Your task to perform on an android device: open app "PlayWell" (install if not already installed) Image 0: 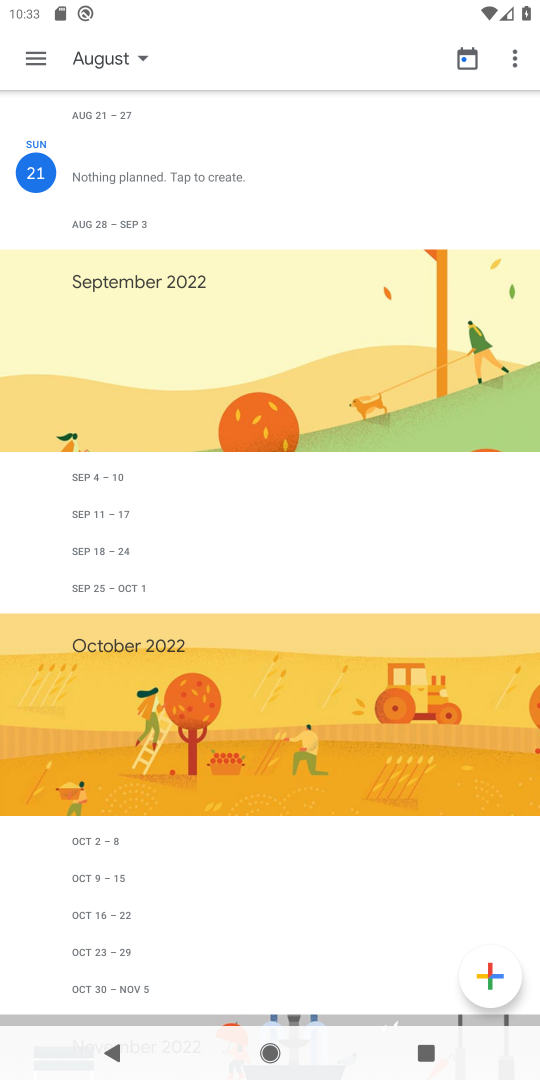
Step 0: press home button
Your task to perform on an android device: open app "PlayWell" (install if not already installed) Image 1: 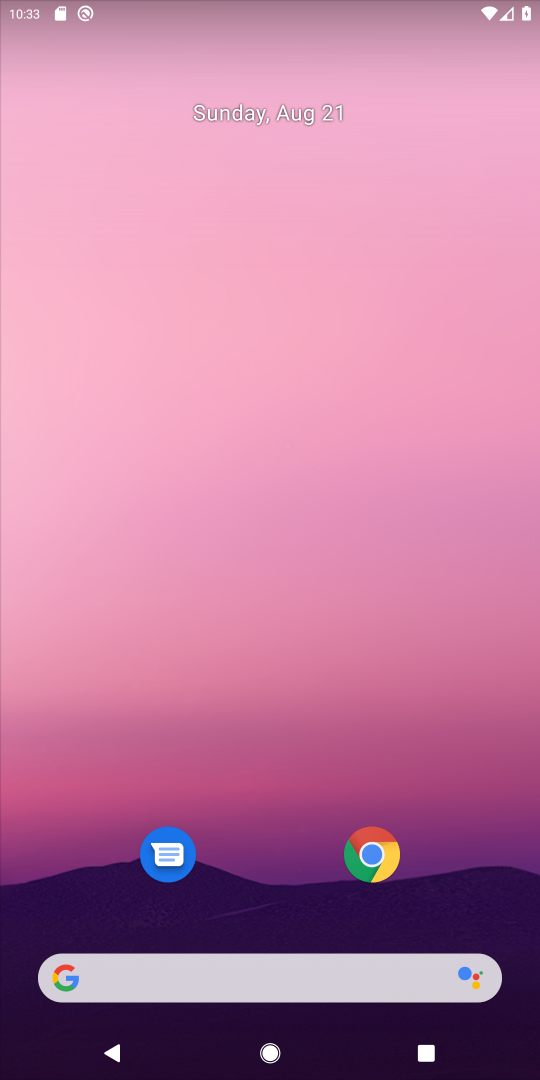
Step 1: drag from (305, 897) to (265, 29)
Your task to perform on an android device: open app "PlayWell" (install if not already installed) Image 2: 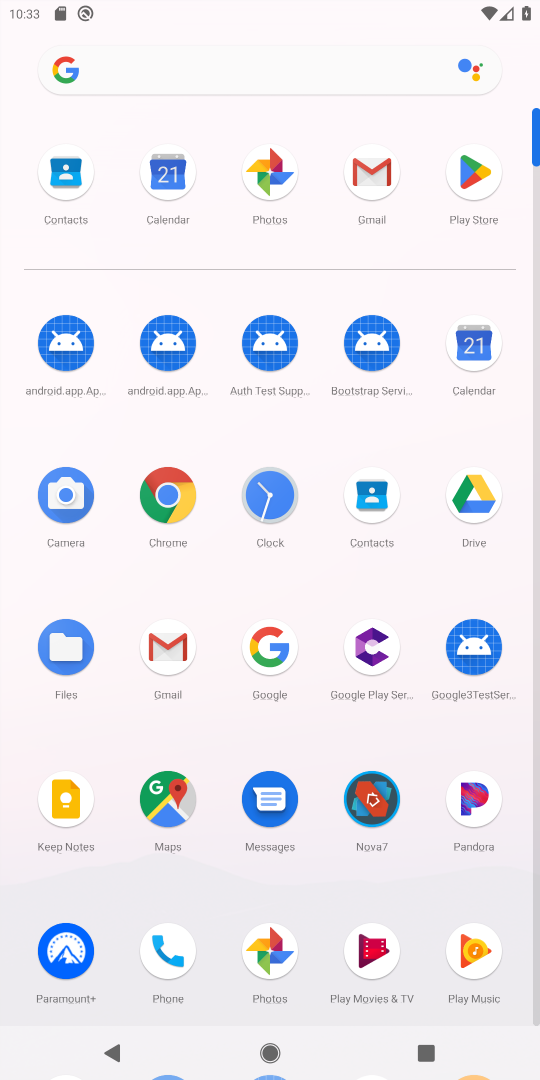
Step 2: click (448, 206)
Your task to perform on an android device: open app "PlayWell" (install if not already installed) Image 3: 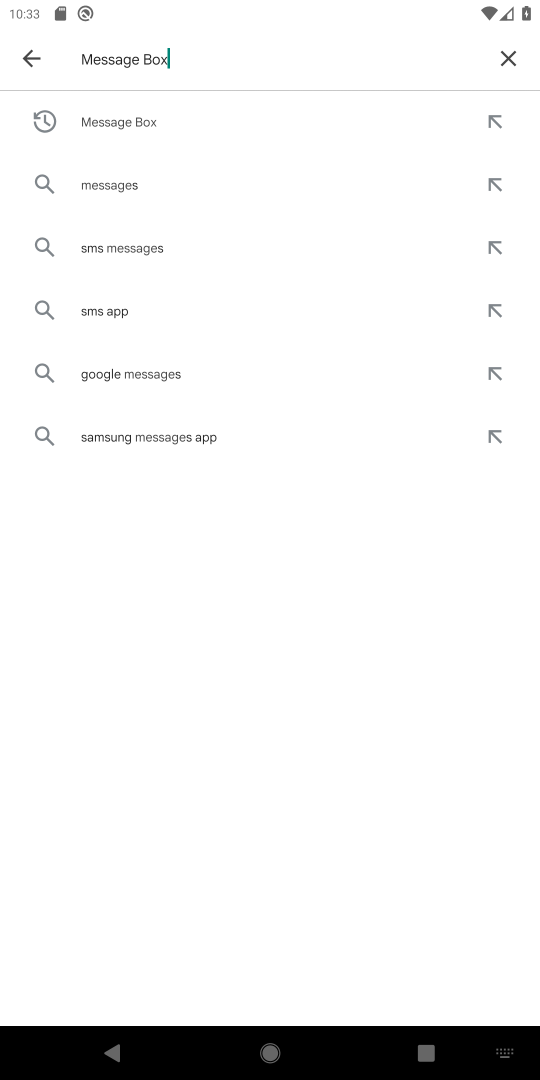
Step 3: click (498, 75)
Your task to perform on an android device: open app "PlayWell" (install if not already installed) Image 4: 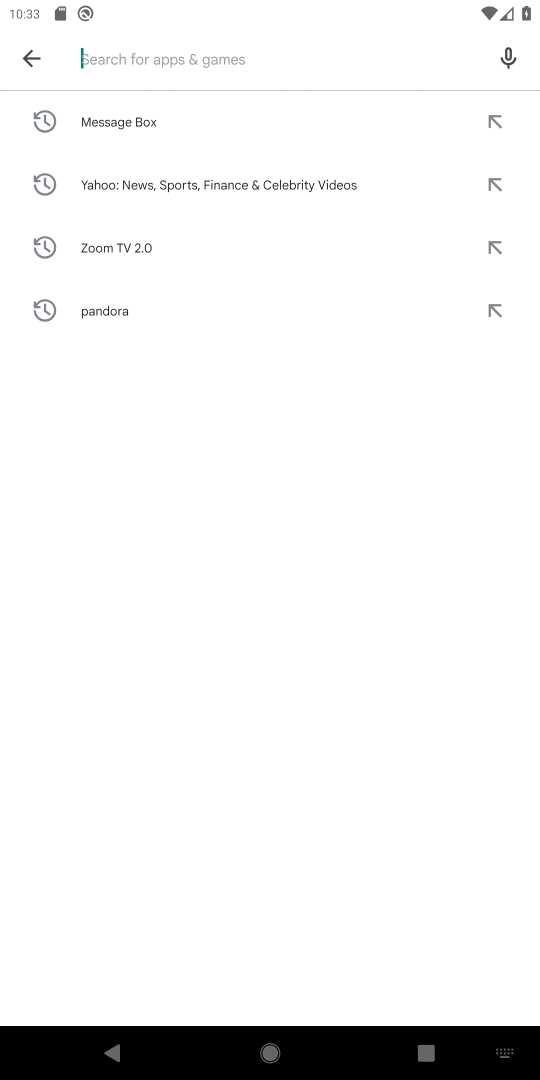
Step 4: type "playwell"
Your task to perform on an android device: open app "PlayWell" (install if not already installed) Image 5: 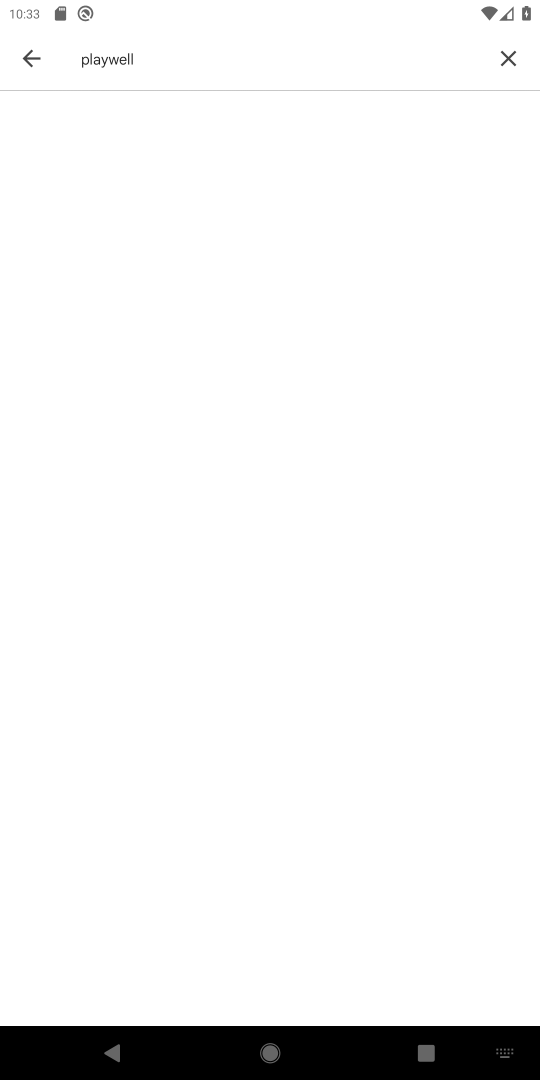
Step 5: task complete